Your task to perform on an android device: Find coffee shops on Maps Image 0: 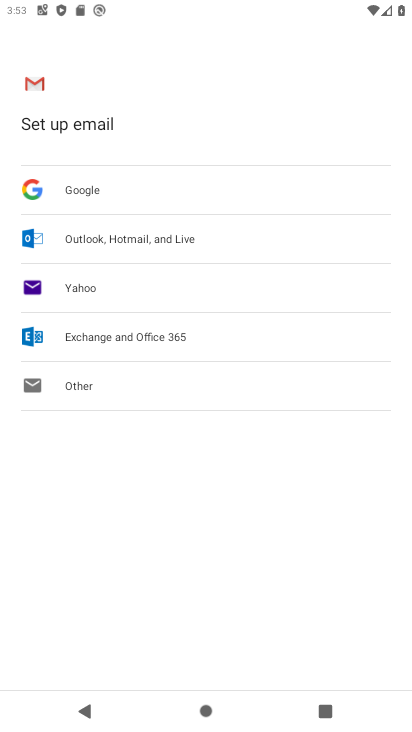
Step 0: press home button
Your task to perform on an android device: Find coffee shops on Maps Image 1: 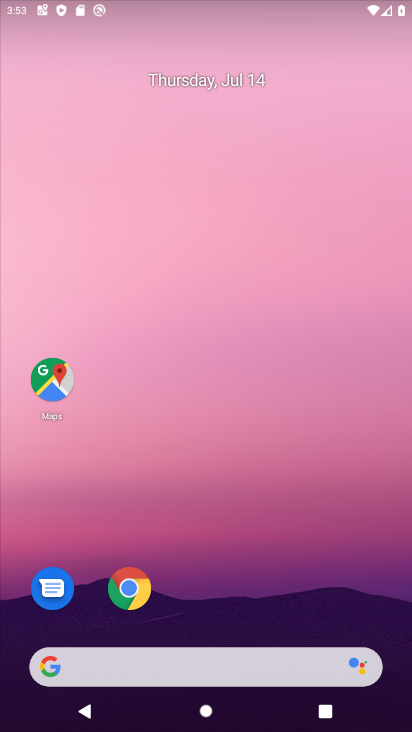
Step 1: drag from (301, 542) to (291, 0)
Your task to perform on an android device: Find coffee shops on Maps Image 2: 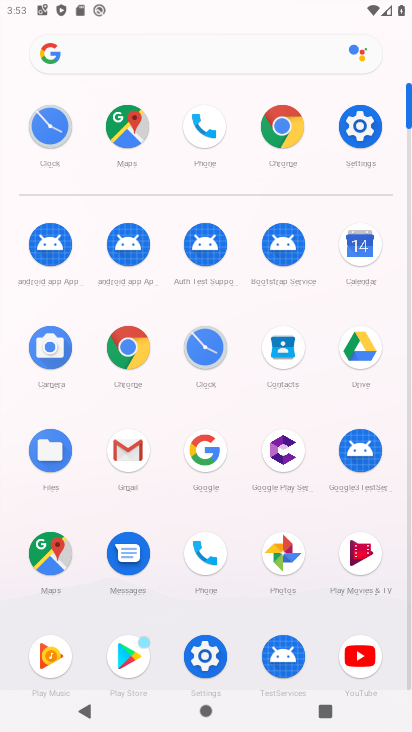
Step 2: click (118, 137)
Your task to perform on an android device: Find coffee shops on Maps Image 3: 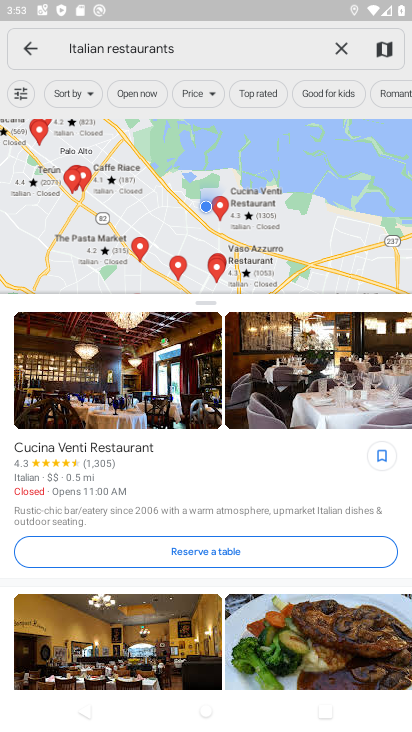
Step 3: click (344, 48)
Your task to perform on an android device: Find coffee shops on Maps Image 4: 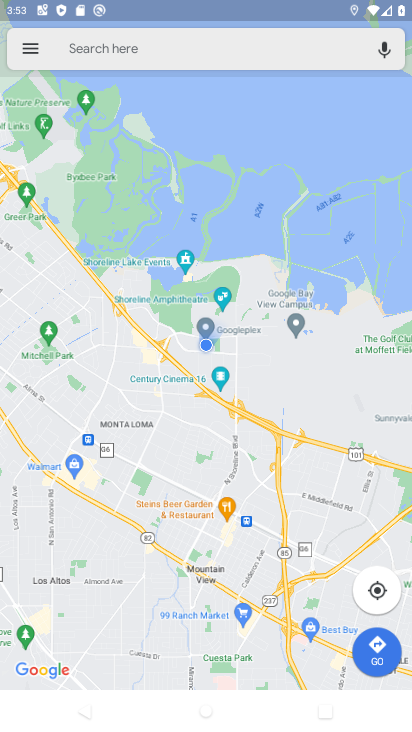
Step 4: click (219, 52)
Your task to perform on an android device: Find coffee shops on Maps Image 5: 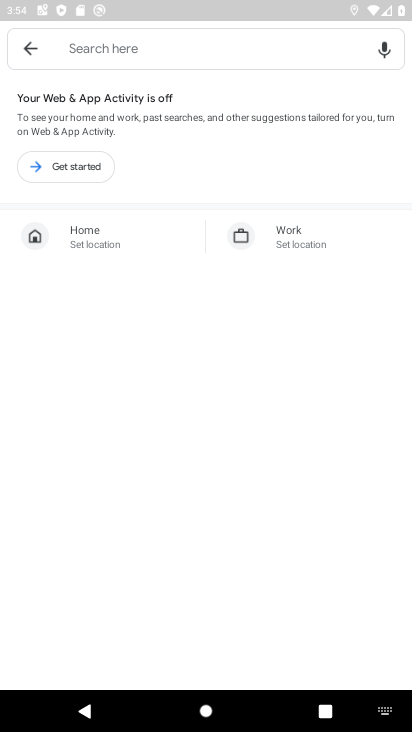
Step 5: type "coffee shops"
Your task to perform on an android device: Find coffee shops on Maps Image 6: 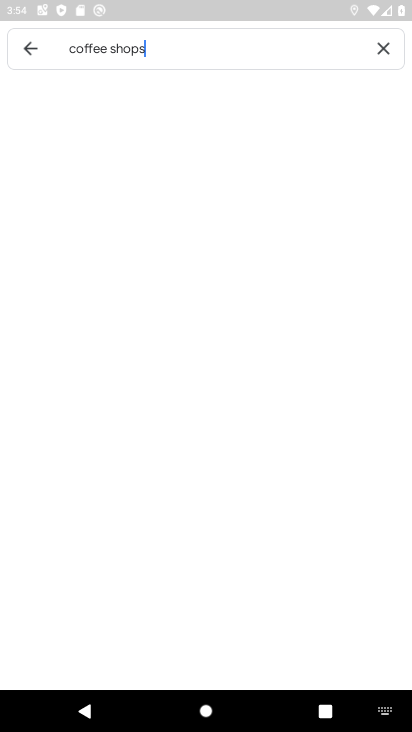
Step 6: press enter
Your task to perform on an android device: Find coffee shops on Maps Image 7: 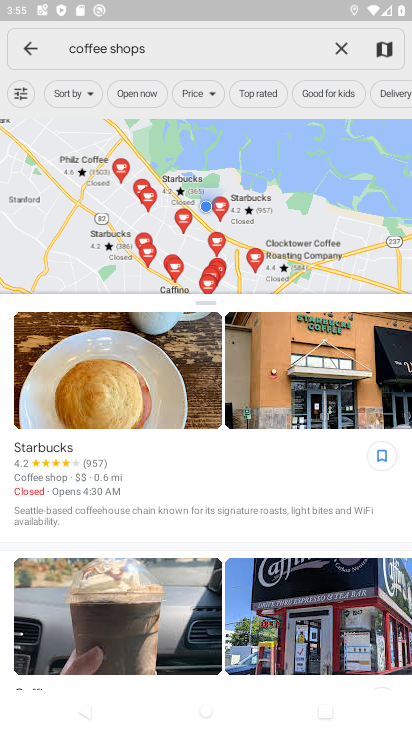
Step 7: task complete